Your task to perform on an android device: Go to eBay Image 0: 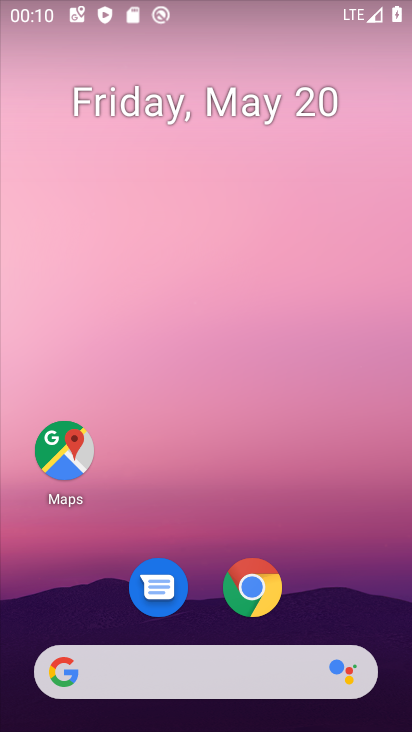
Step 0: drag from (289, 709) to (331, 94)
Your task to perform on an android device: Go to eBay Image 1: 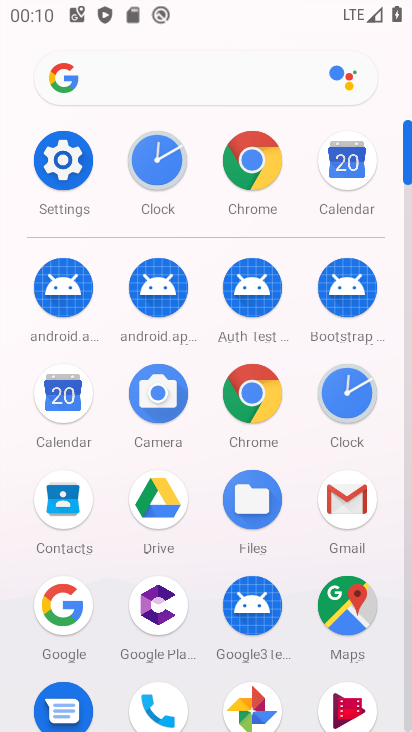
Step 1: click (265, 178)
Your task to perform on an android device: Go to eBay Image 2: 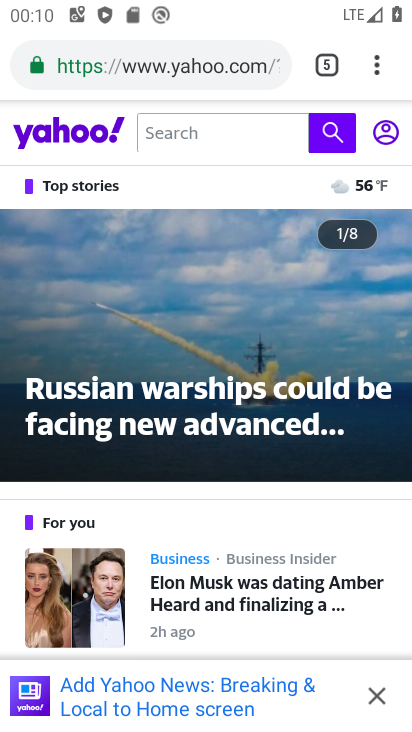
Step 2: click (158, 75)
Your task to perform on an android device: Go to eBay Image 3: 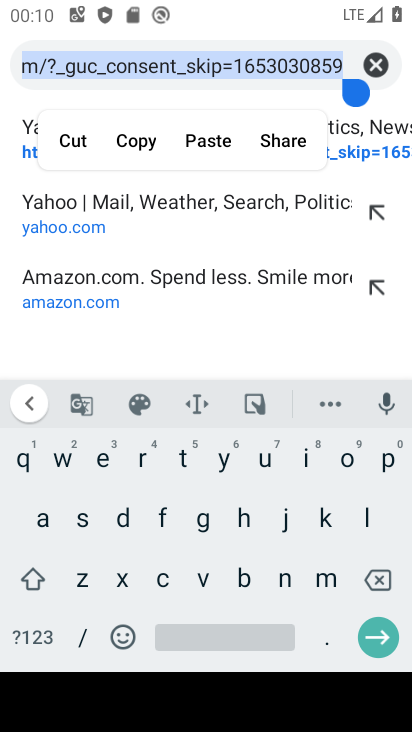
Step 3: click (101, 468)
Your task to perform on an android device: Go to eBay Image 4: 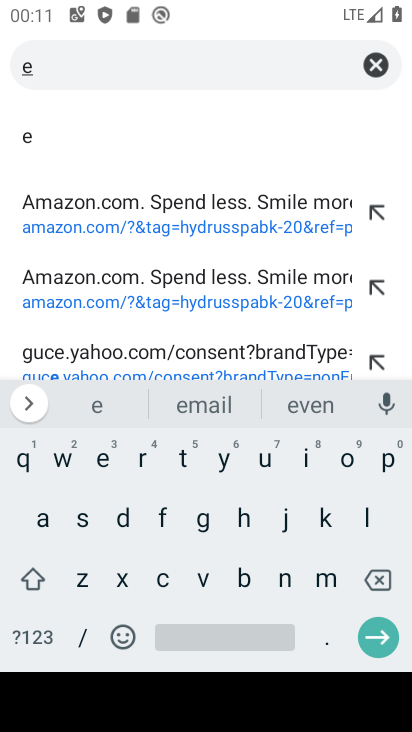
Step 4: click (232, 577)
Your task to perform on an android device: Go to eBay Image 5: 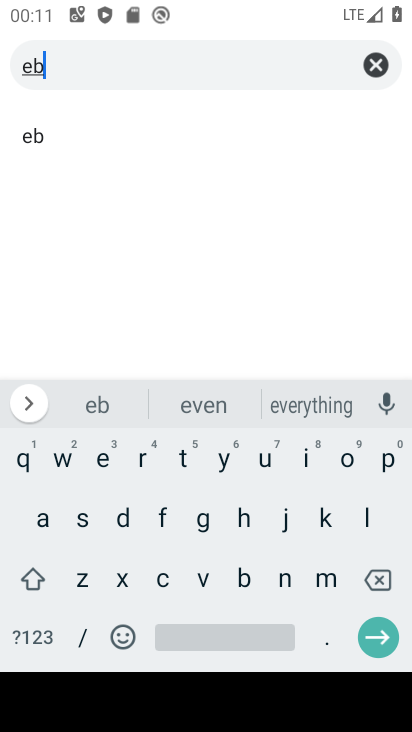
Step 5: click (40, 516)
Your task to perform on an android device: Go to eBay Image 6: 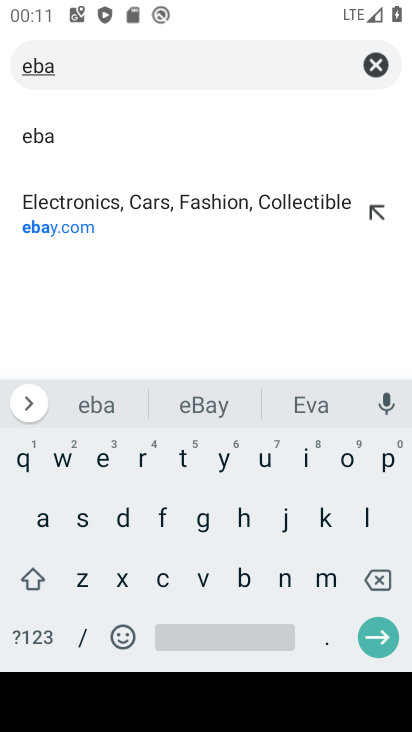
Step 6: click (231, 458)
Your task to perform on an android device: Go to eBay Image 7: 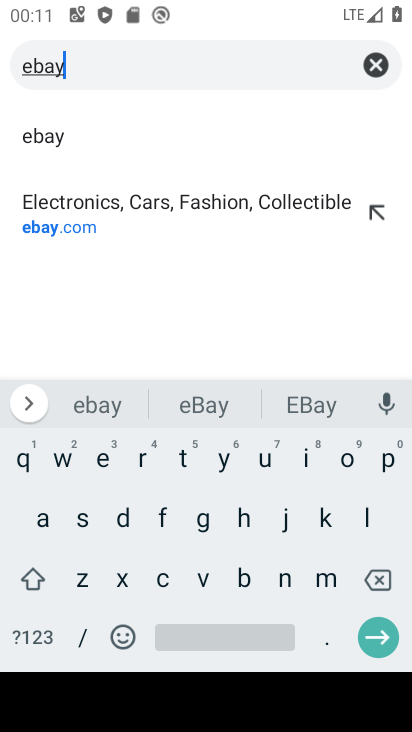
Step 7: click (376, 632)
Your task to perform on an android device: Go to eBay Image 8: 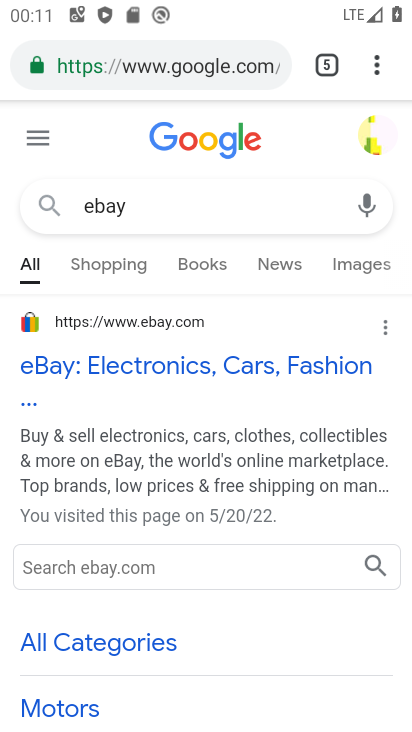
Step 8: click (103, 375)
Your task to perform on an android device: Go to eBay Image 9: 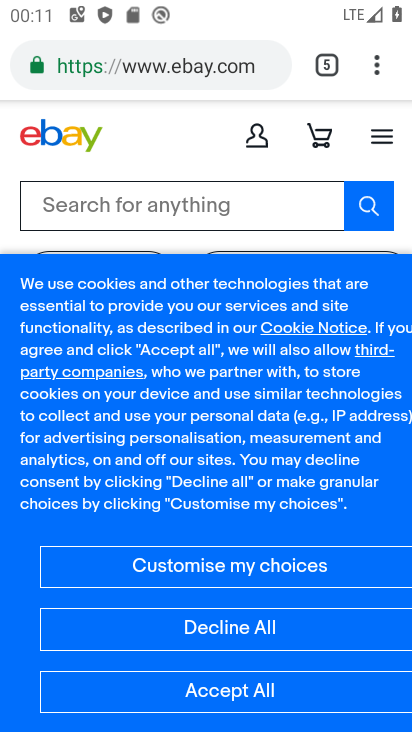
Step 9: click (230, 626)
Your task to perform on an android device: Go to eBay Image 10: 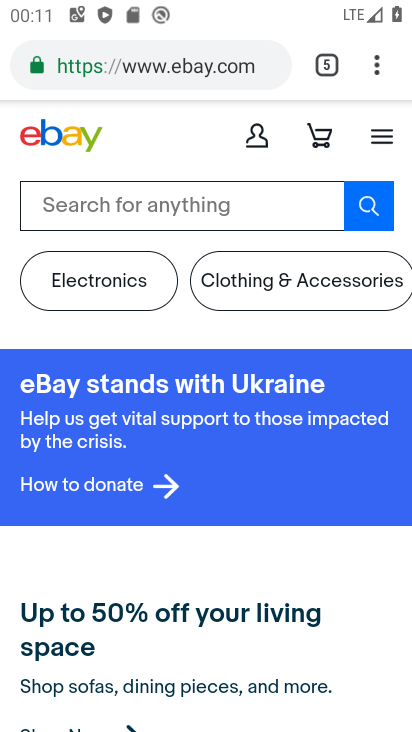
Step 10: task complete